Your task to perform on an android device: toggle improve location accuracy Image 0: 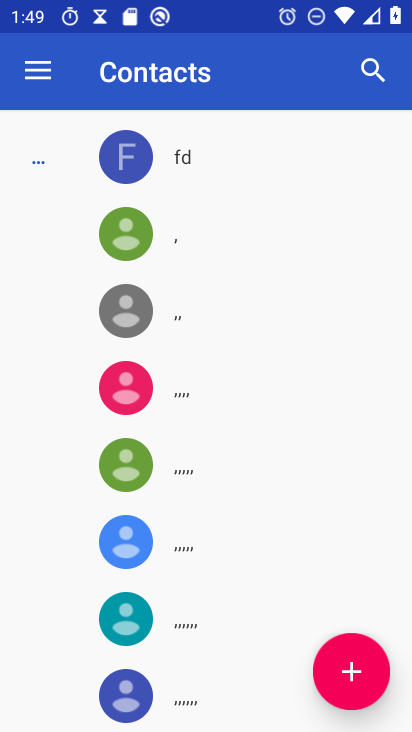
Step 0: press home button
Your task to perform on an android device: toggle improve location accuracy Image 1: 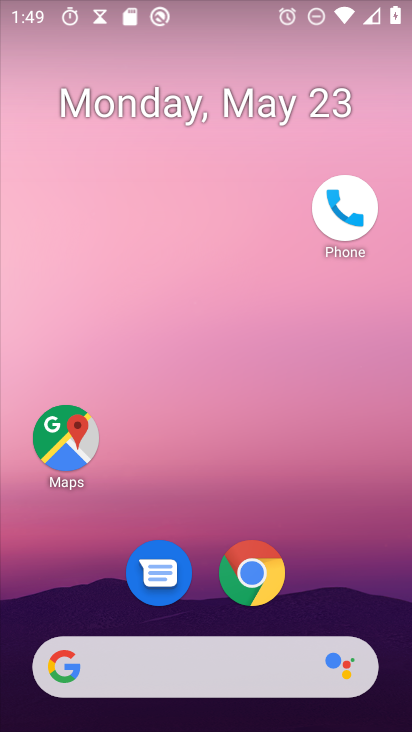
Step 1: drag from (202, 673) to (328, 166)
Your task to perform on an android device: toggle improve location accuracy Image 2: 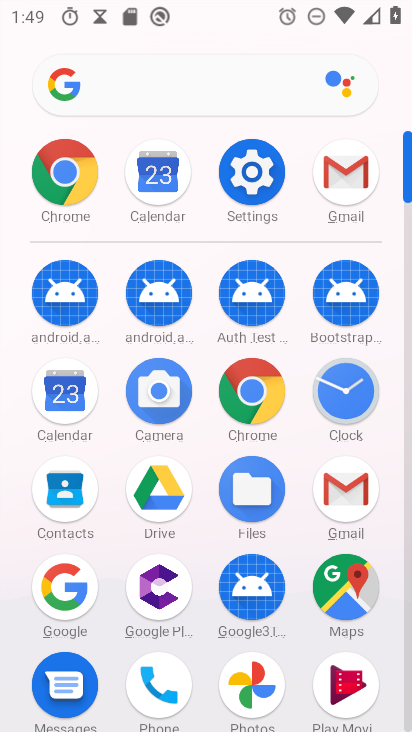
Step 2: click (261, 183)
Your task to perform on an android device: toggle improve location accuracy Image 3: 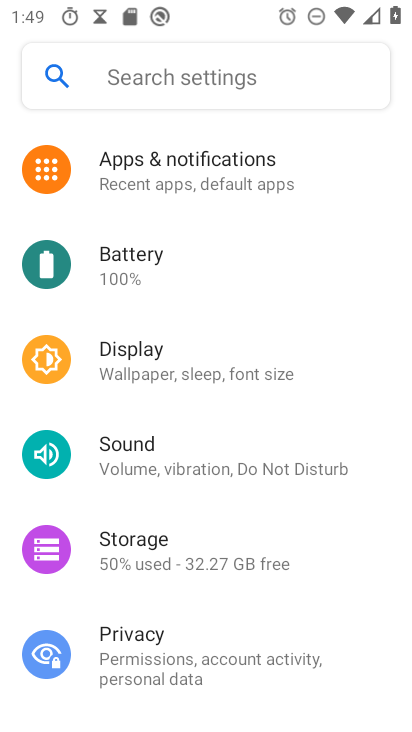
Step 3: drag from (217, 652) to (269, 211)
Your task to perform on an android device: toggle improve location accuracy Image 4: 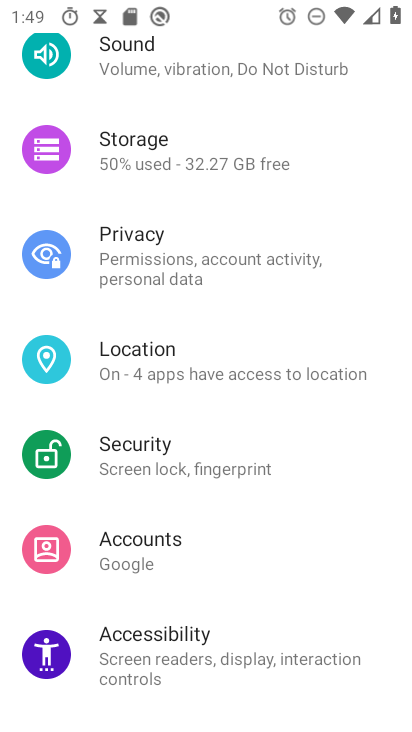
Step 4: click (168, 368)
Your task to perform on an android device: toggle improve location accuracy Image 5: 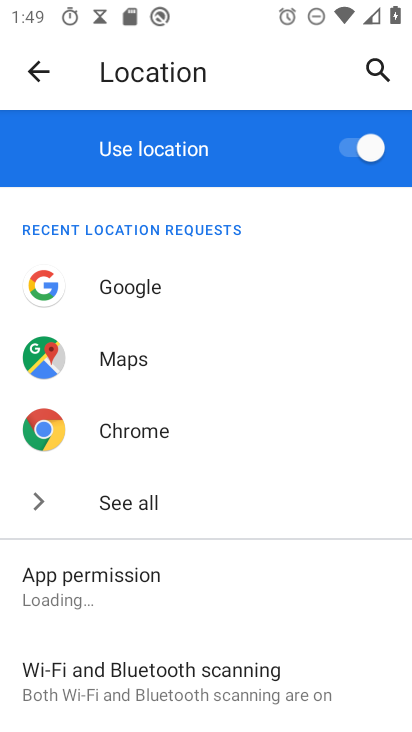
Step 5: drag from (190, 635) to (253, 244)
Your task to perform on an android device: toggle improve location accuracy Image 6: 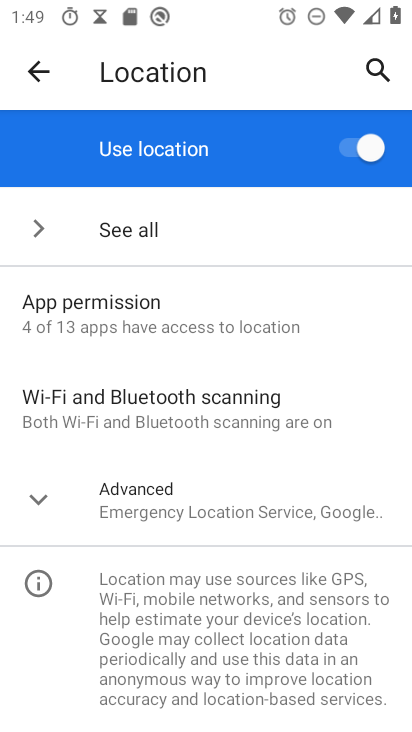
Step 6: click (164, 495)
Your task to perform on an android device: toggle improve location accuracy Image 7: 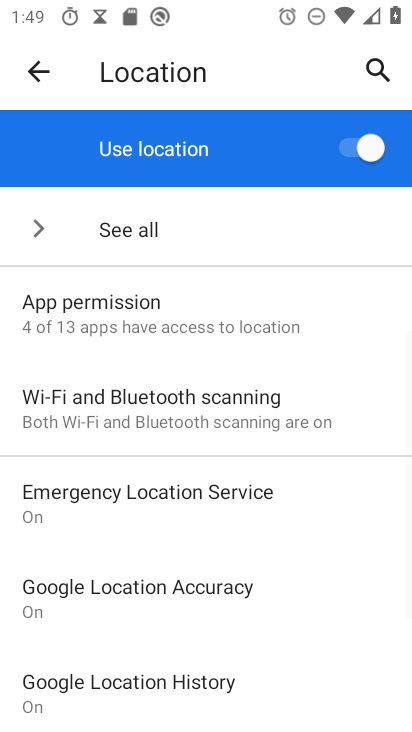
Step 7: click (132, 594)
Your task to perform on an android device: toggle improve location accuracy Image 8: 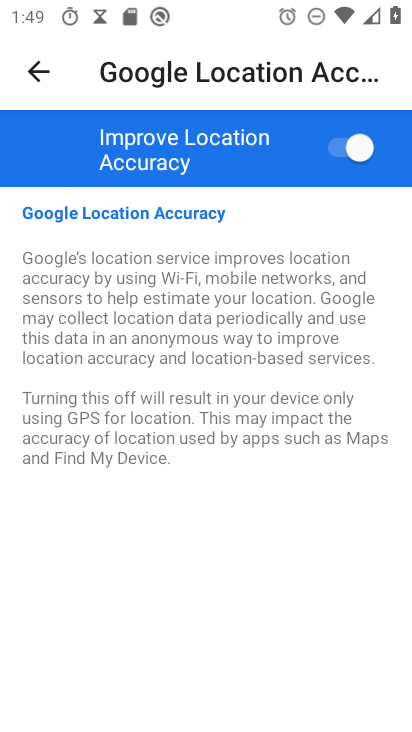
Step 8: click (342, 149)
Your task to perform on an android device: toggle improve location accuracy Image 9: 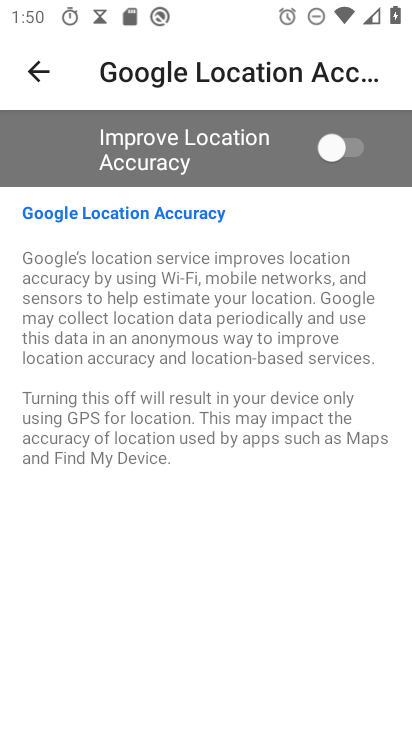
Step 9: task complete